Your task to perform on an android device: turn vacation reply on in the gmail app Image 0: 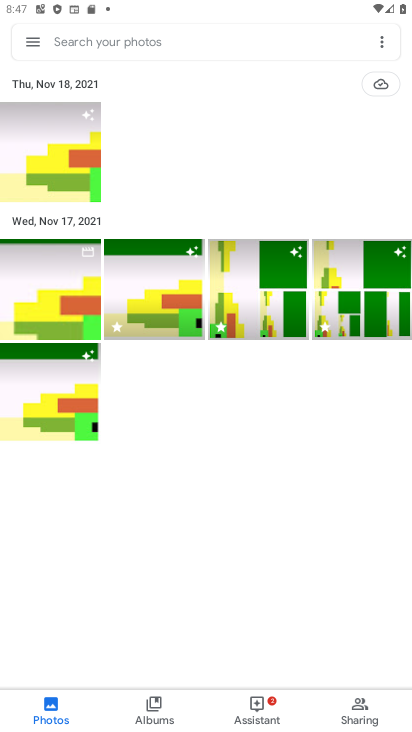
Step 0: click (33, 41)
Your task to perform on an android device: turn vacation reply on in the gmail app Image 1: 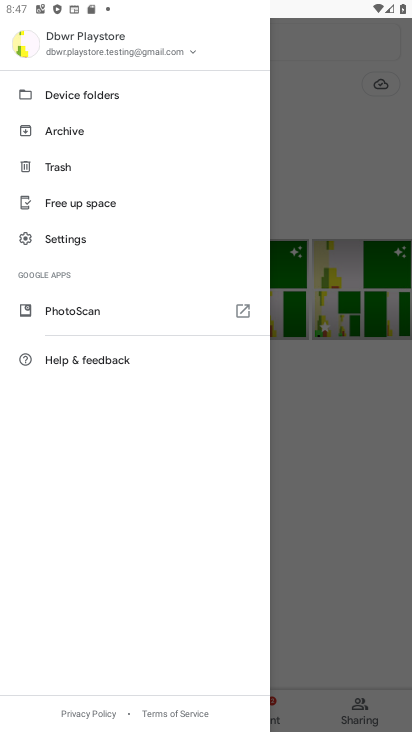
Step 1: press home button
Your task to perform on an android device: turn vacation reply on in the gmail app Image 2: 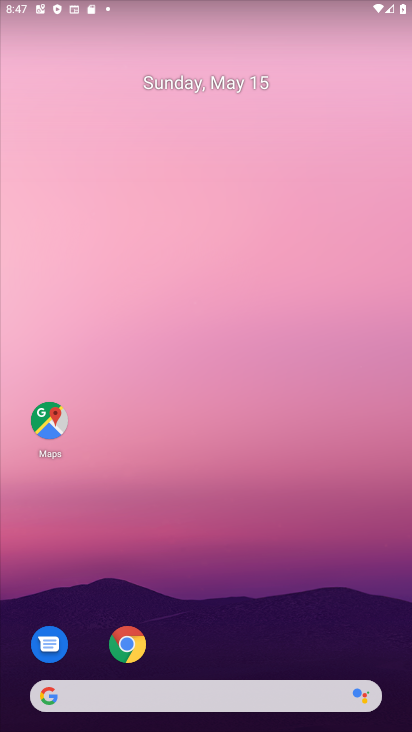
Step 2: drag from (126, 10) to (248, 39)
Your task to perform on an android device: turn vacation reply on in the gmail app Image 3: 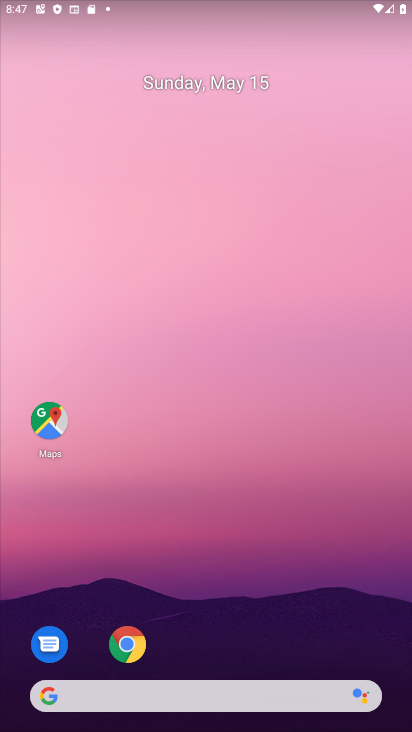
Step 3: drag from (240, 668) to (286, 15)
Your task to perform on an android device: turn vacation reply on in the gmail app Image 4: 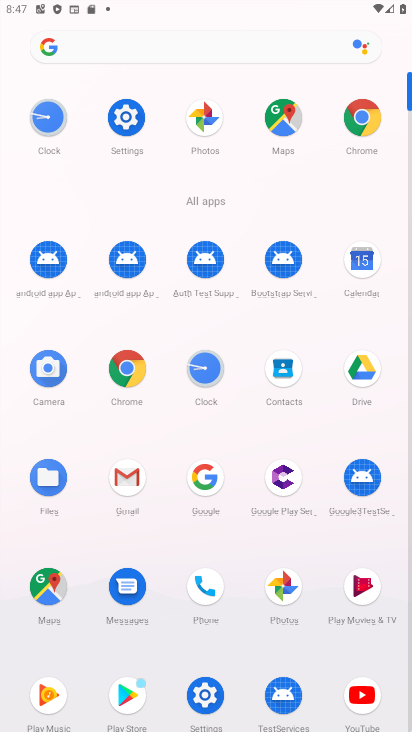
Step 4: click (132, 473)
Your task to perform on an android device: turn vacation reply on in the gmail app Image 5: 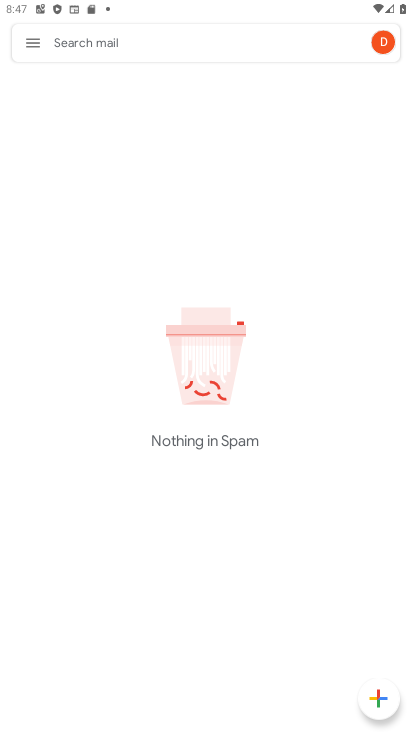
Step 5: click (33, 35)
Your task to perform on an android device: turn vacation reply on in the gmail app Image 6: 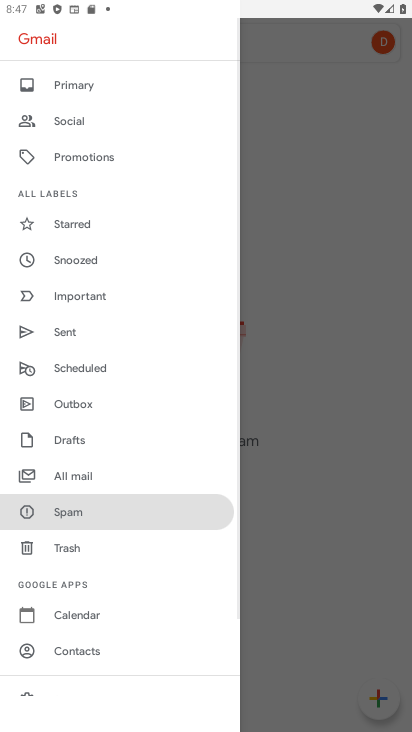
Step 6: drag from (117, 621) to (62, 134)
Your task to perform on an android device: turn vacation reply on in the gmail app Image 7: 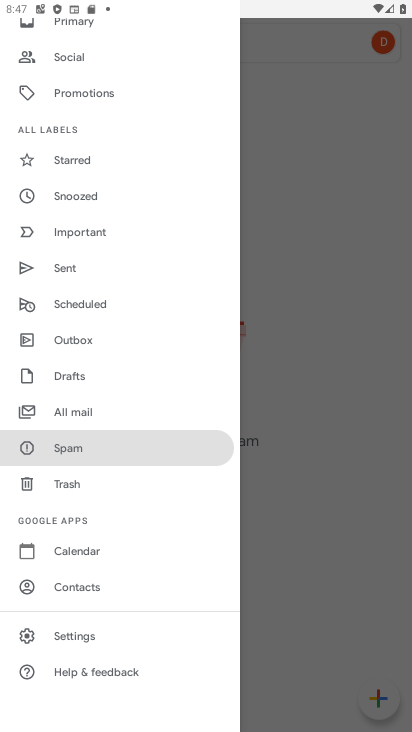
Step 7: click (85, 630)
Your task to perform on an android device: turn vacation reply on in the gmail app Image 8: 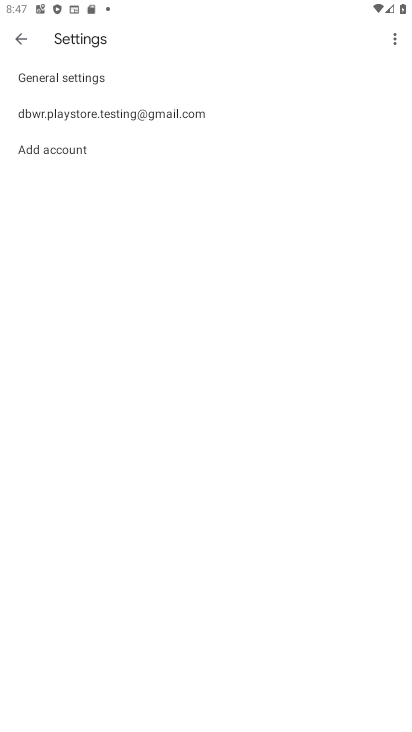
Step 8: click (66, 112)
Your task to perform on an android device: turn vacation reply on in the gmail app Image 9: 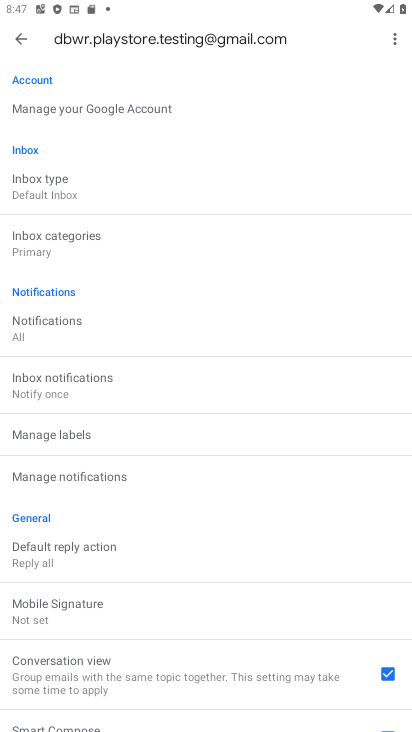
Step 9: drag from (216, 657) to (151, 162)
Your task to perform on an android device: turn vacation reply on in the gmail app Image 10: 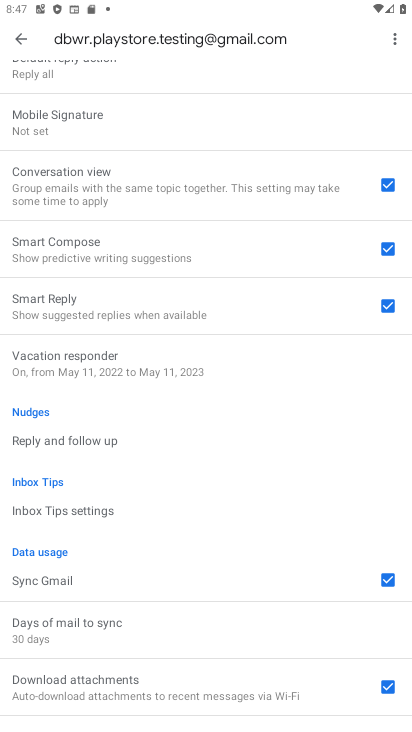
Step 10: click (138, 375)
Your task to perform on an android device: turn vacation reply on in the gmail app Image 11: 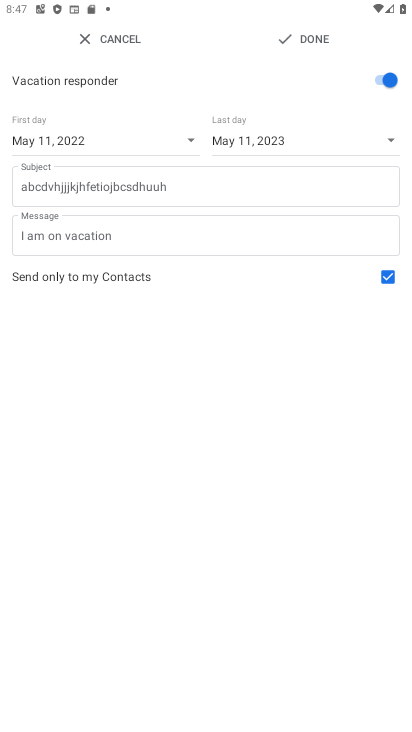
Step 11: click (321, 35)
Your task to perform on an android device: turn vacation reply on in the gmail app Image 12: 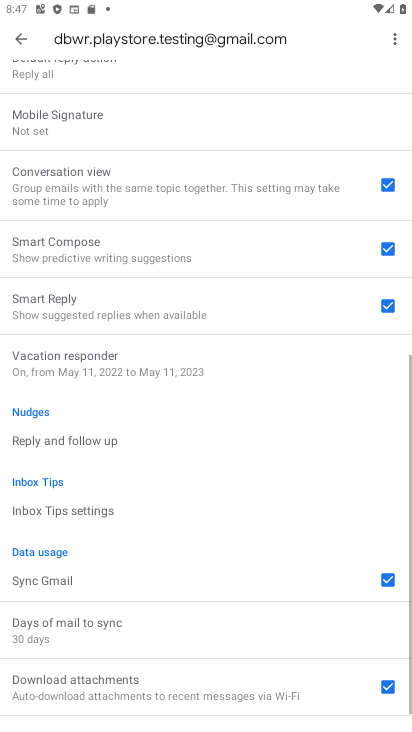
Step 12: task complete